Your task to perform on an android device: find which apps use the phone's location Image 0: 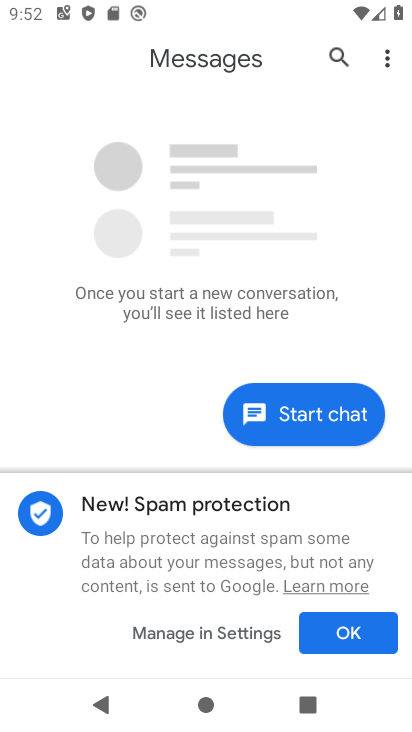
Step 0: press home button
Your task to perform on an android device: find which apps use the phone's location Image 1: 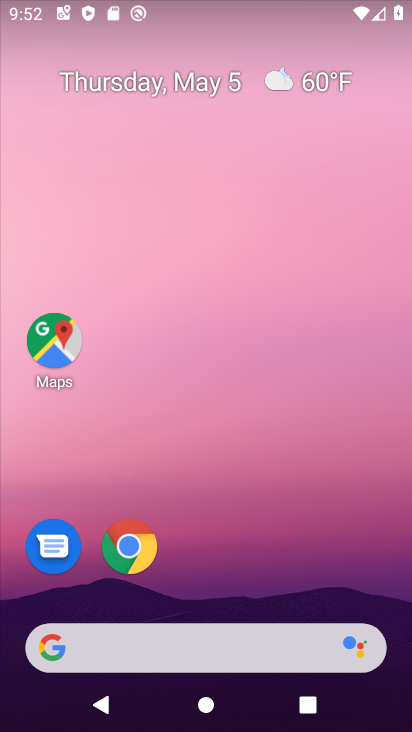
Step 1: drag from (258, 583) to (312, 32)
Your task to perform on an android device: find which apps use the phone's location Image 2: 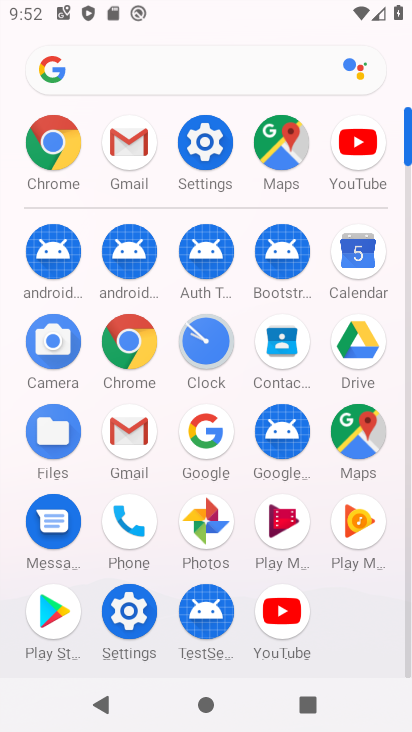
Step 2: click (217, 134)
Your task to perform on an android device: find which apps use the phone's location Image 3: 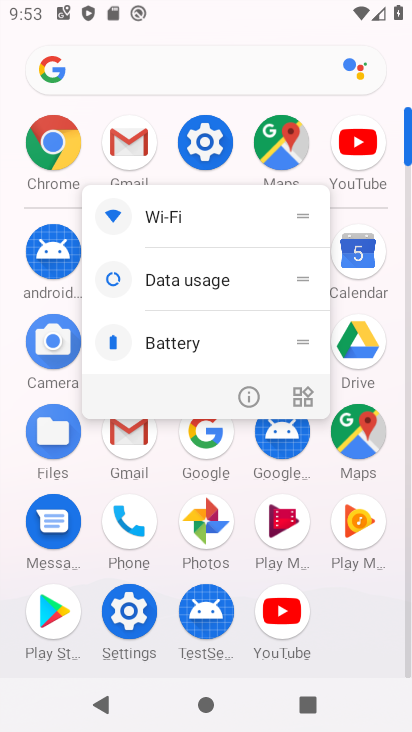
Step 3: click (205, 144)
Your task to perform on an android device: find which apps use the phone's location Image 4: 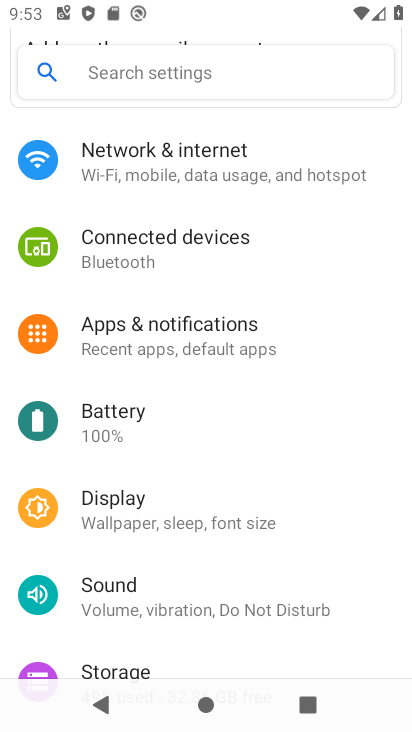
Step 4: drag from (141, 608) to (136, 495)
Your task to perform on an android device: find which apps use the phone's location Image 5: 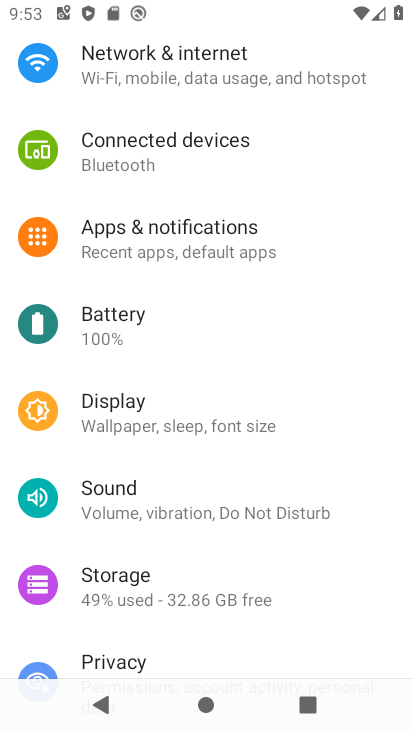
Step 5: drag from (150, 604) to (154, 414)
Your task to perform on an android device: find which apps use the phone's location Image 6: 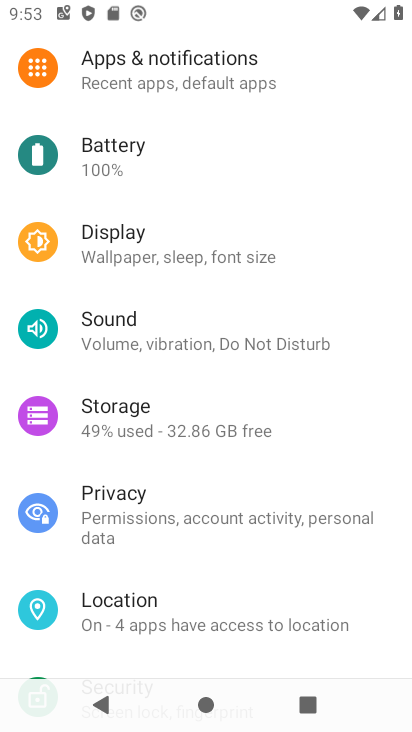
Step 6: click (148, 599)
Your task to perform on an android device: find which apps use the phone's location Image 7: 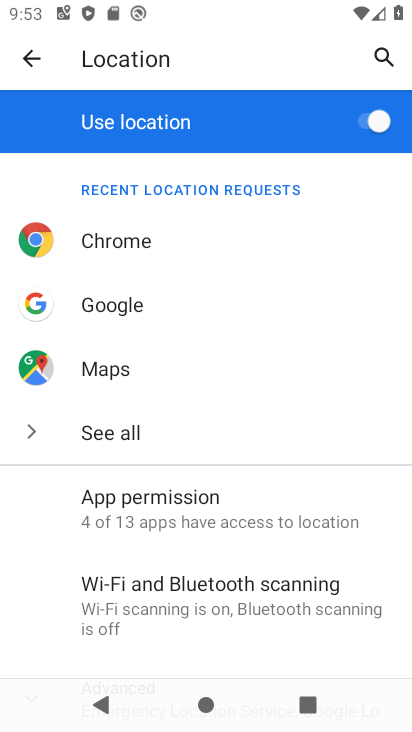
Step 7: click (150, 509)
Your task to perform on an android device: find which apps use the phone's location Image 8: 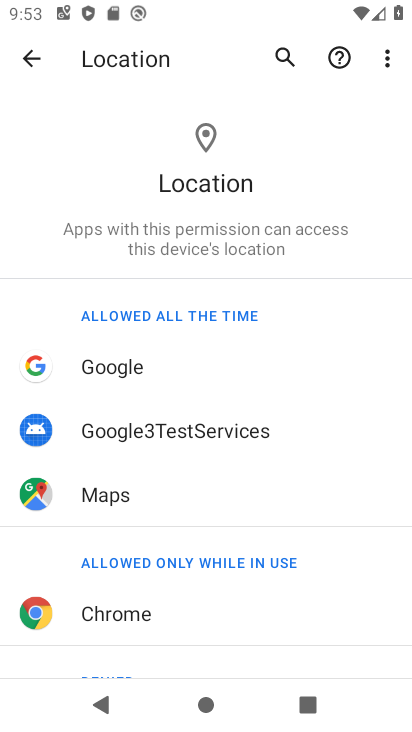
Step 8: task complete